Your task to perform on an android device: allow cookies in the chrome app Image 0: 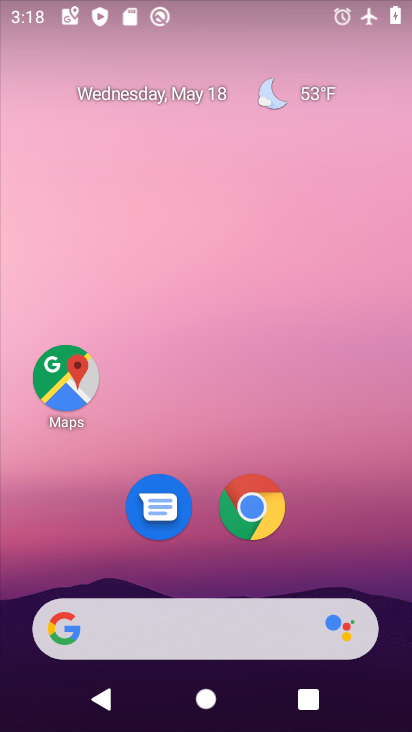
Step 0: click (251, 507)
Your task to perform on an android device: allow cookies in the chrome app Image 1: 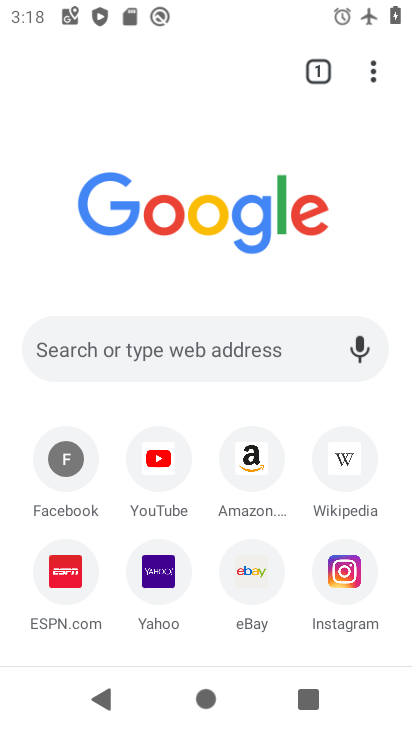
Step 1: click (374, 74)
Your task to perform on an android device: allow cookies in the chrome app Image 2: 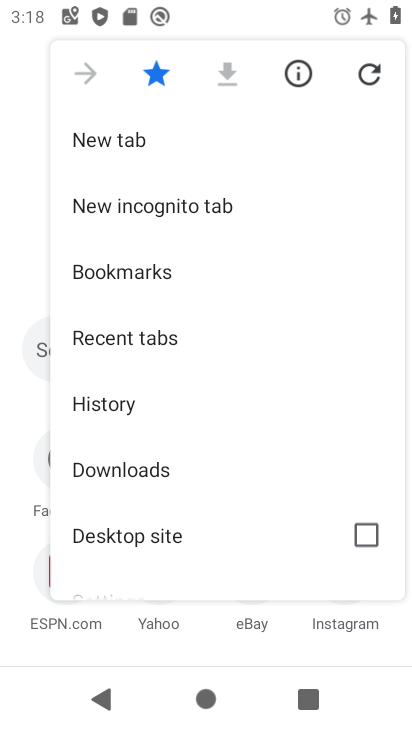
Step 2: drag from (185, 429) to (244, 321)
Your task to perform on an android device: allow cookies in the chrome app Image 3: 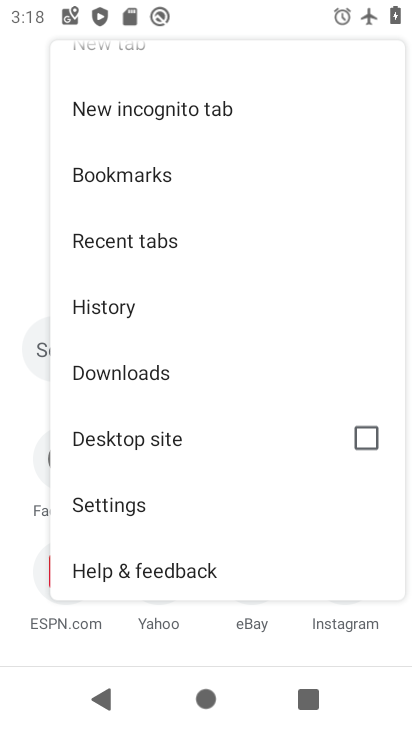
Step 3: click (128, 499)
Your task to perform on an android device: allow cookies in the chrome app Image 4: 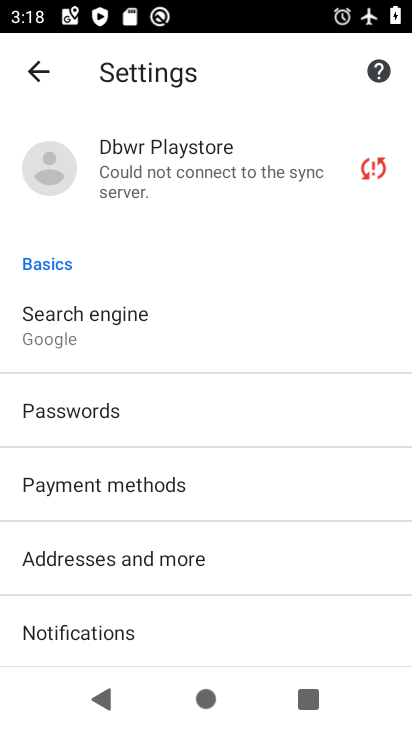
Step 4: drag from (210, 452) to (220, 367)
Your task to perform on an android device: allow cookies in the chrome app Image 5: 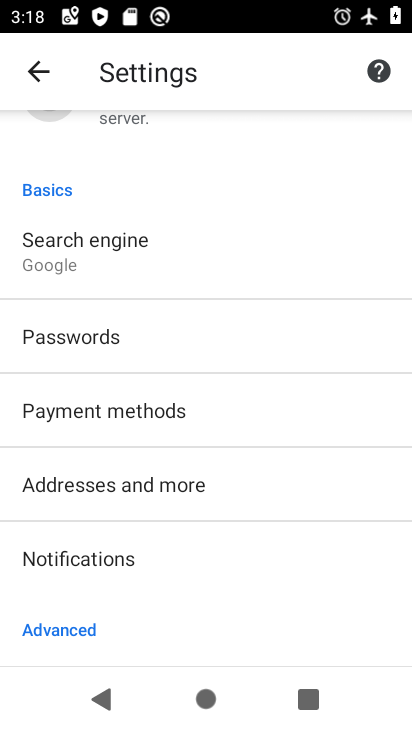
Step 5: drag from (168, 502) to (176, 389)
Your task to perform on an android device: allow cookies in the chrome app Image 6: 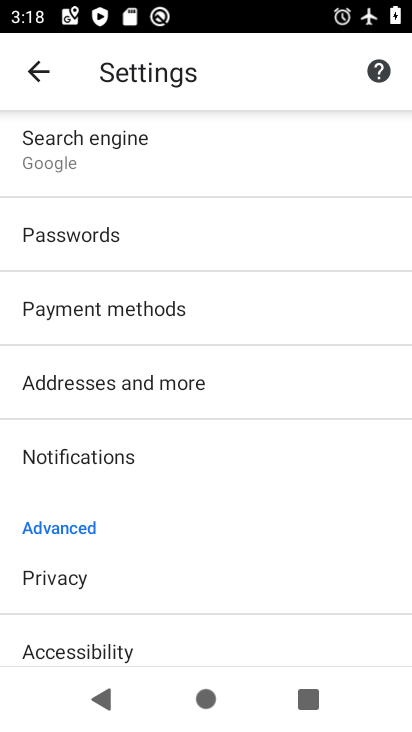
Step 6: drag from (121, 511) to (147, 425)
Your task to perform on an android device: allow cookies in the chrome app Image 7: 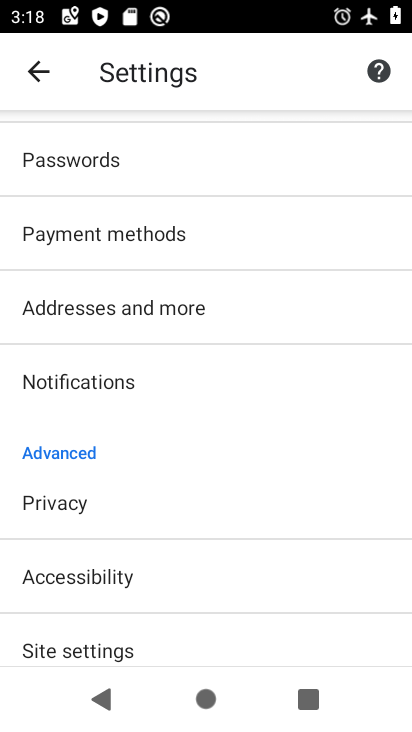
Step 7: drag from (110, 536) to (136, 432)
Your task to perform on an android device: allow cookies in the chrome app Image 8: 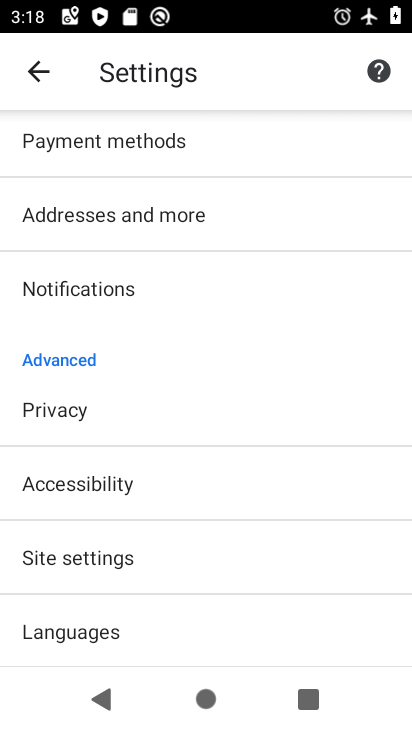
Step 8: drag from (79, 535) to (122, 428)
Your task to perform on an android device: allow cookies in the chrome app Image 9: 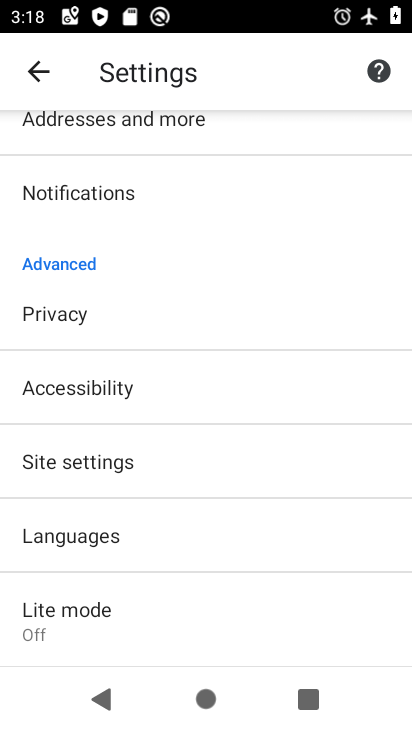
Step 9: drag from (82, 523) to (124, 428)
Your task to perform on an android device: allow cookies in the chrome app Image 10: 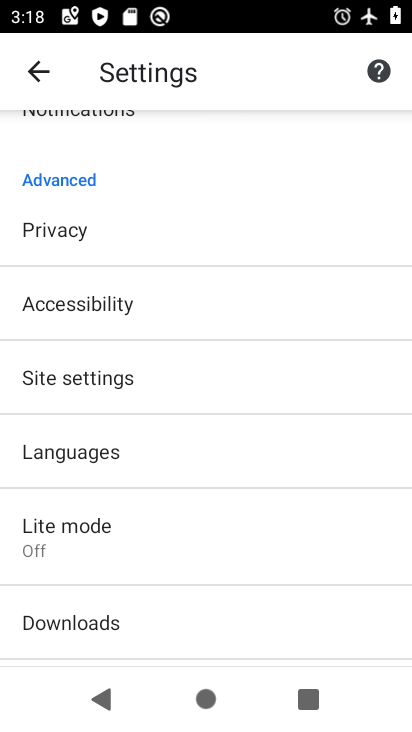
Step 10: click (96, 385)
Your task to perform on an android device: allow cookies in the chrome app Image 11: 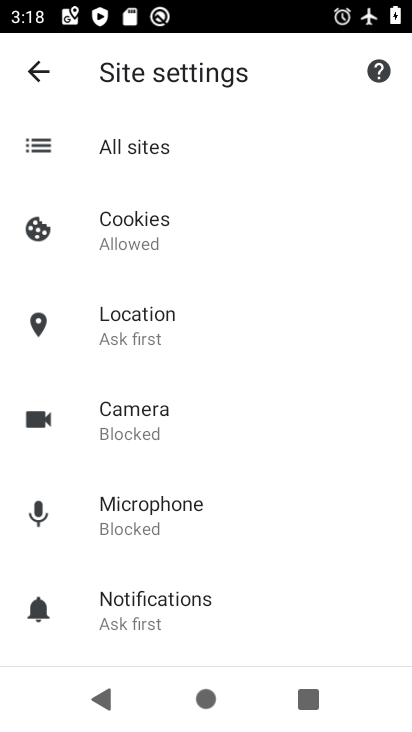
Step 11: click (127, 230)
Your task to perform on an android device: allow cookies in the chrome app Image 12: 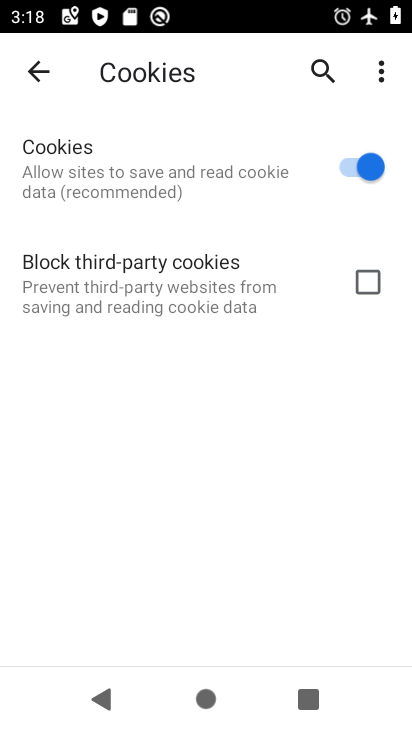
Step 12: click (364, 276)
Your task to perform on an android device: allow cookies in the chrome app Image 13: 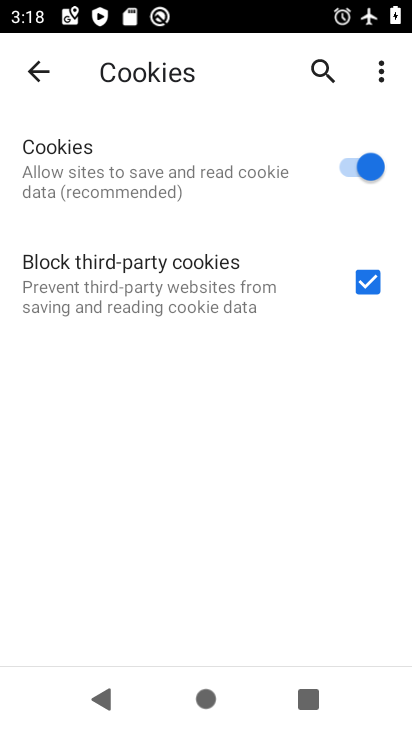
Step 13: task complete